Your task to perform on an android device: see creations saved in the google photos Image 0: 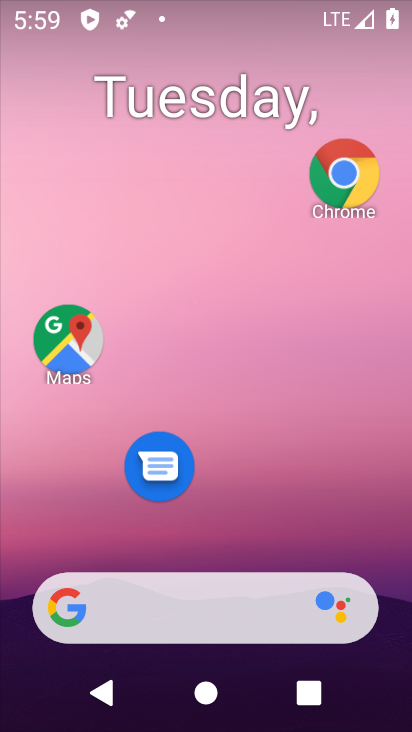
Step 0: press home button
Your task to perform on an android device: see creations saved in the google photos Image 1: 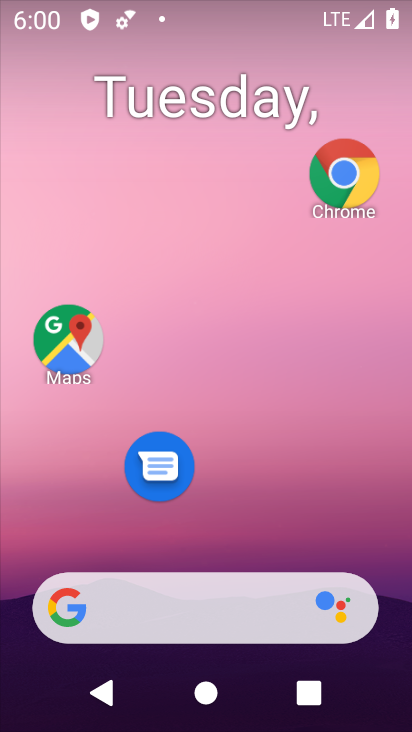
Step 1: drag from (387, 596) to (364, 207)
Your task to perform on an android device: see creations saved in the google photos Image 2: 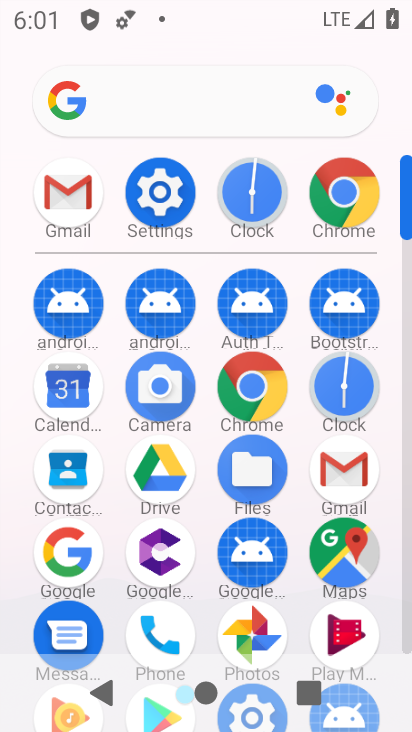
Step 2: drag from (295, 637) to (261, 226)
Your task to perform on an android device: see creations saved in the google photos Image 3: 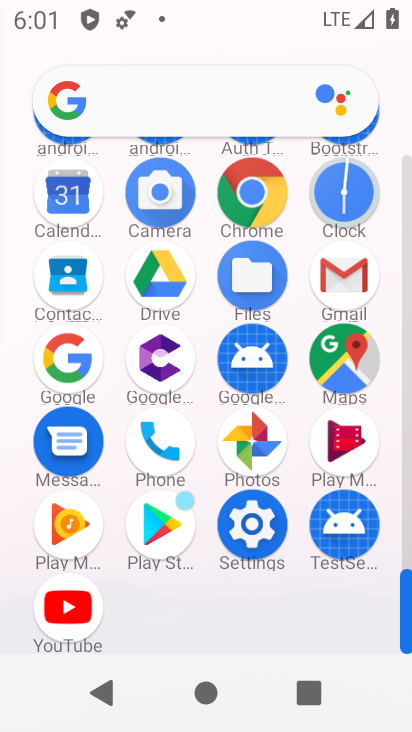
Step 3: click (238, 452)
Your task to perform on an android device: see creations saved in the google photos Image 4: 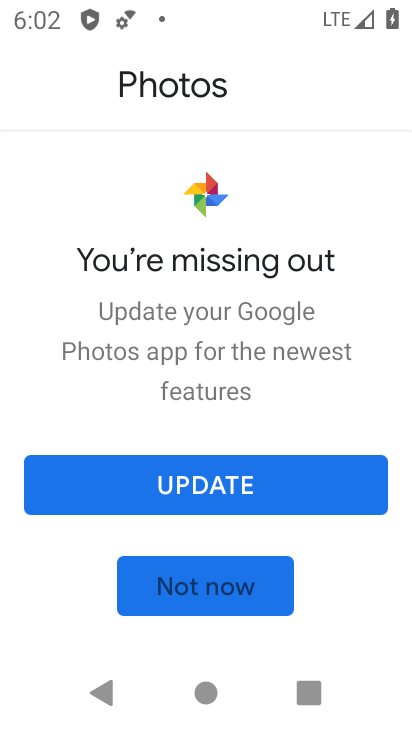
Step 4: click (229, 581)
Your task to perform on an android device: see creations saved in the google photos Image 5: 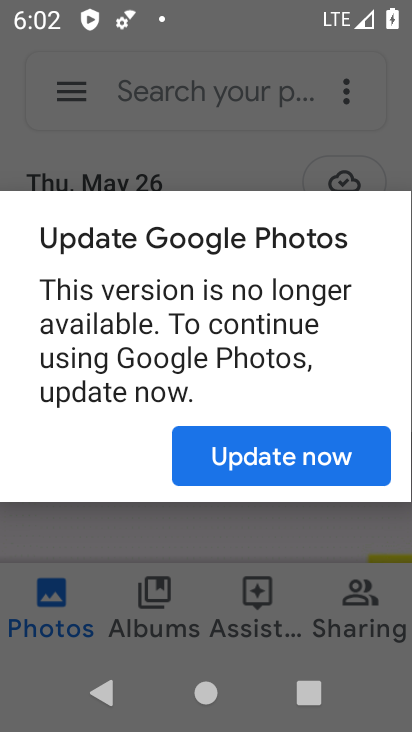
Step 5: click (241, 478)
Your task to perform on an android device: see creations saved in the google photos Image 6: 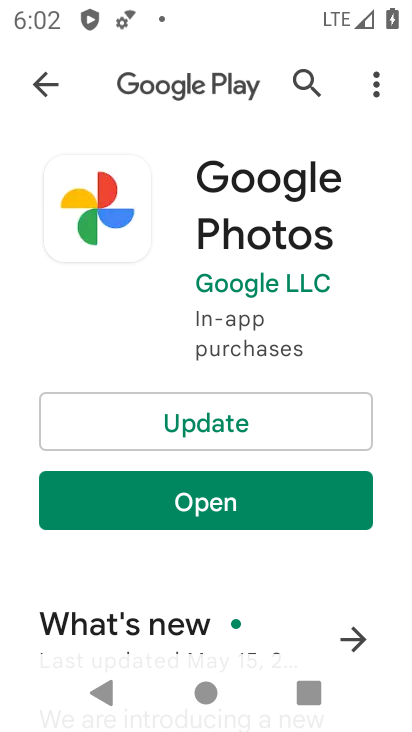
Step 6: click (188, 413)
Your task to perform on an android device: see creations saved in the google photos Image 7: 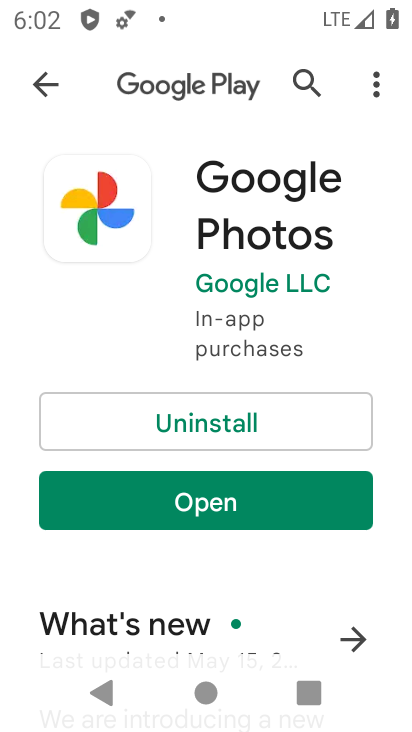
Step 7: click (205, 492)
Your task to perform on an android device: see creations saved in the google photos Image 8: 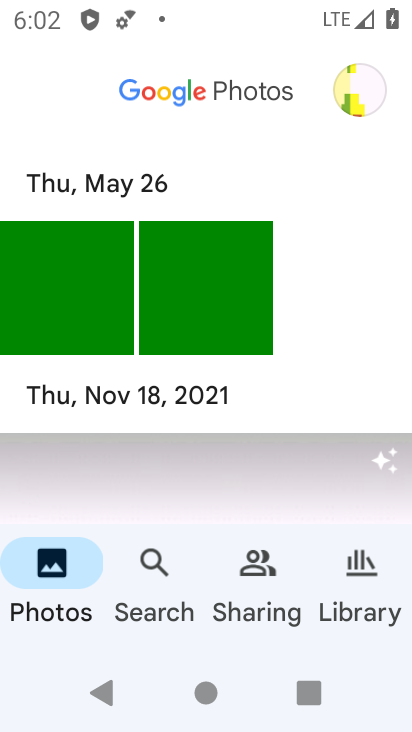
Step 8: click (155, 591)
Your task to perform on an android device: see creations saved in the google photos Image 9: 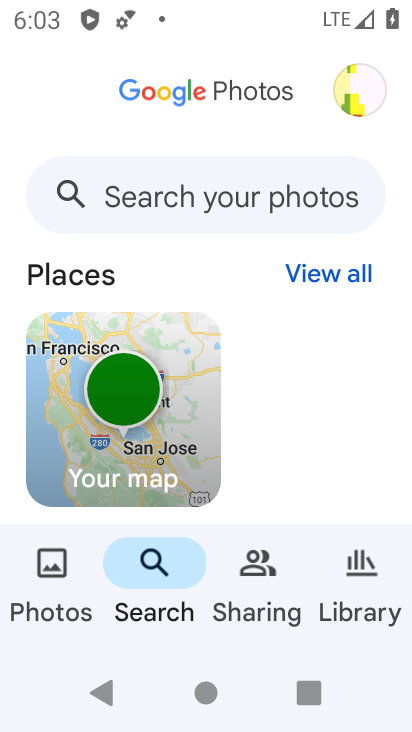
Step 9: click (190, 195)
Your task to perform on an android device: see creations saved in the google photos Image 10: 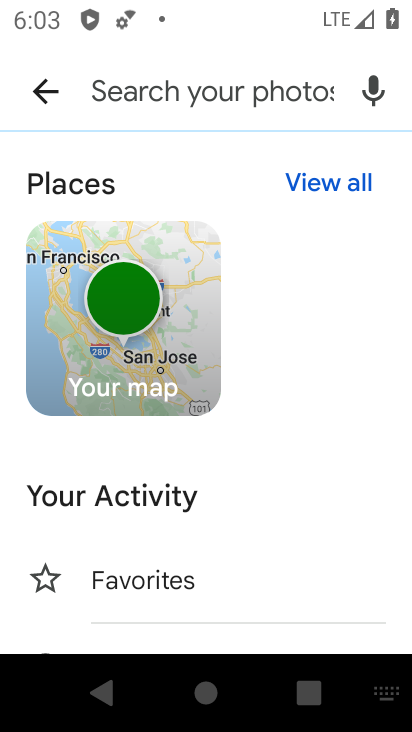
Step 10: drag from (333, 543) to (312, 98)
Your task to perform on an android device: see creations saved in the google photos Image 11: 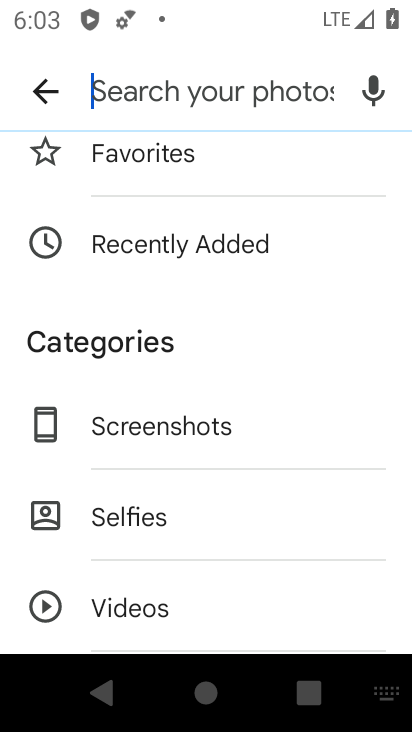
Step 11: drag from (193, 557) to (218, 147)
Your task to perform on an android device: see creations saved in the google photos Image 12: 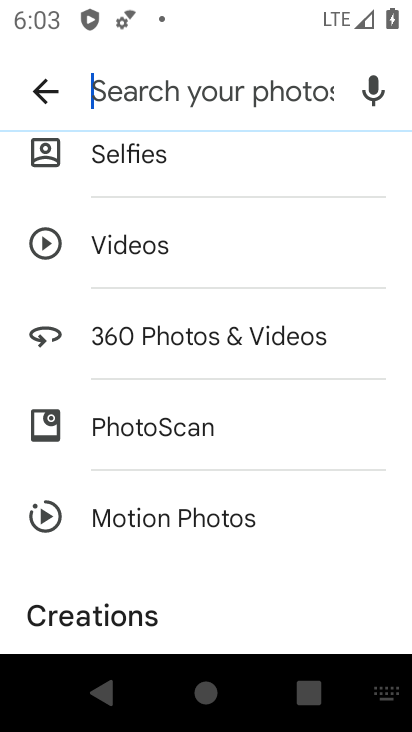
Step 12: drag from (165, 501) to (186, 185)
Your task to perform on an android device: see creations saved in the google photos Image 13: 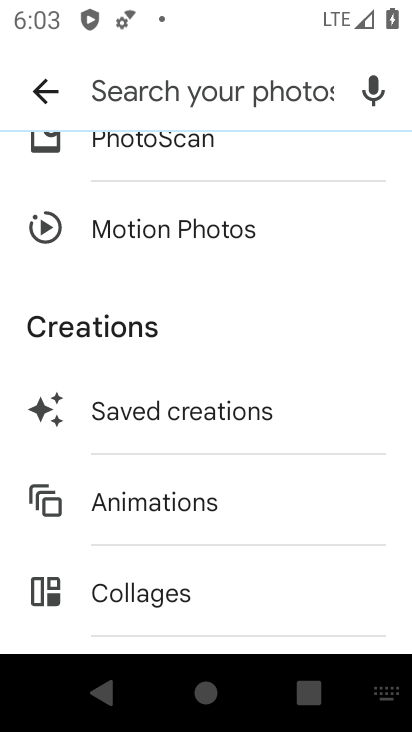
Step 13: drag from (165, 536) to (167, 291)
Your task to perform on an android device: see creations saved in the google photos Image 14: 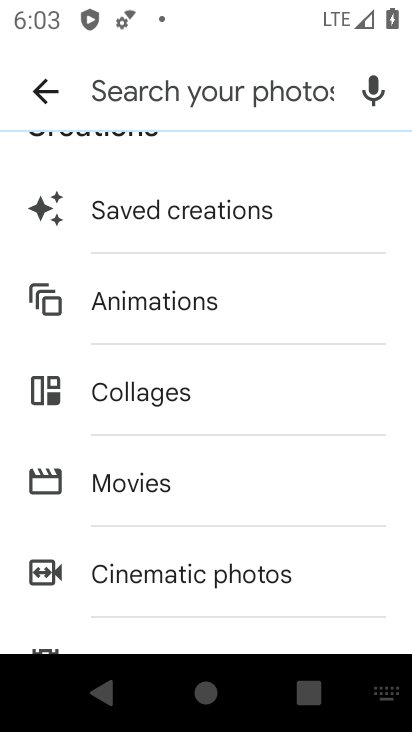
Step 14: click (165, 189)
Your task to perform on an android device: see creations saved in the google photos Image 15: 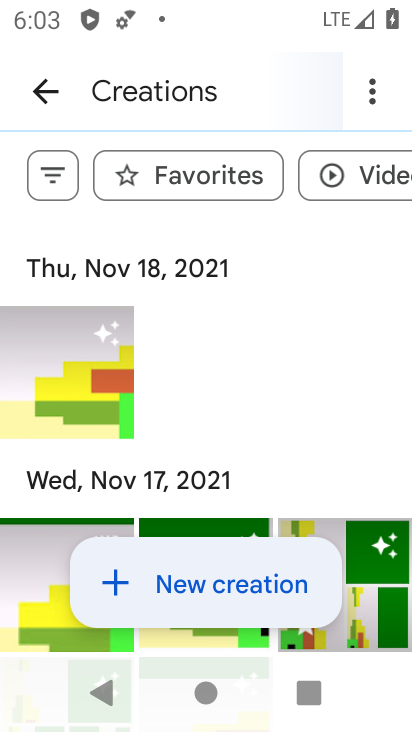
Step 15: task complete